Your task to perform on an android device: Open Google Maps and go to "Timeline" Image 0: 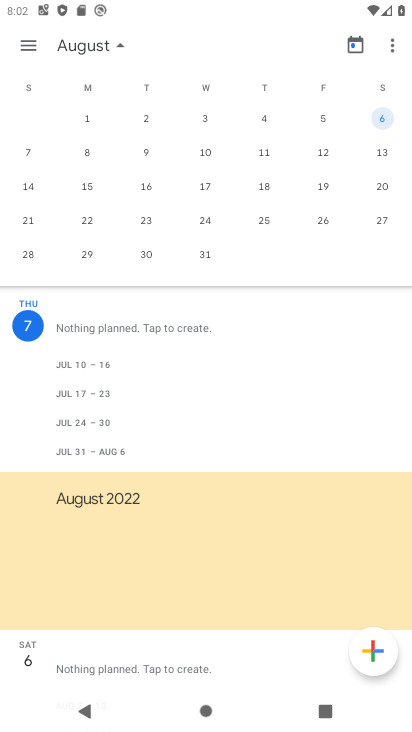
Step 0: drag from (180, 610) to (185, 194)
Your task to perform on an android device: Open Google Maps and go to "Timeline" Image 1: 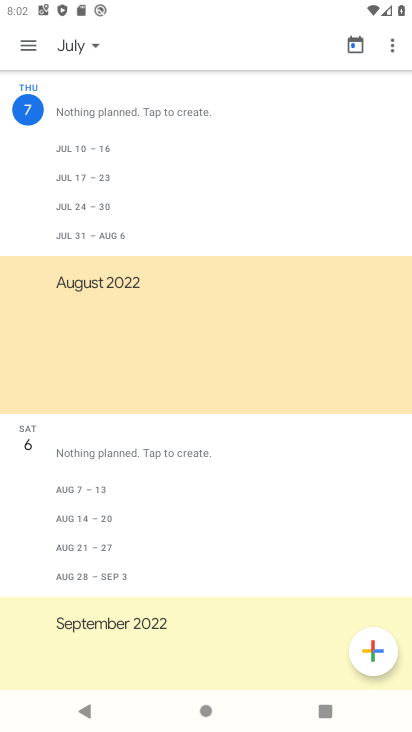
Step 1: press home button
Your task to perform on an android device: Open Google Maps and go to "Timeline" Image 2: 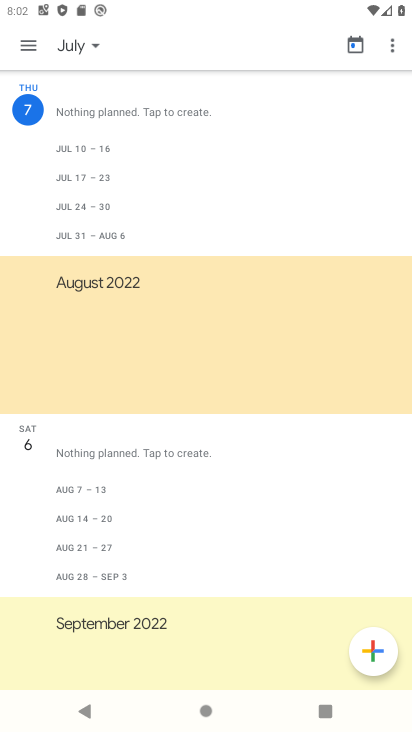
Step 2: drag from (282, 552) to (236, 176)
Your task to perform on an android device: Open Google Maps and go to "Timeline" Image 3: 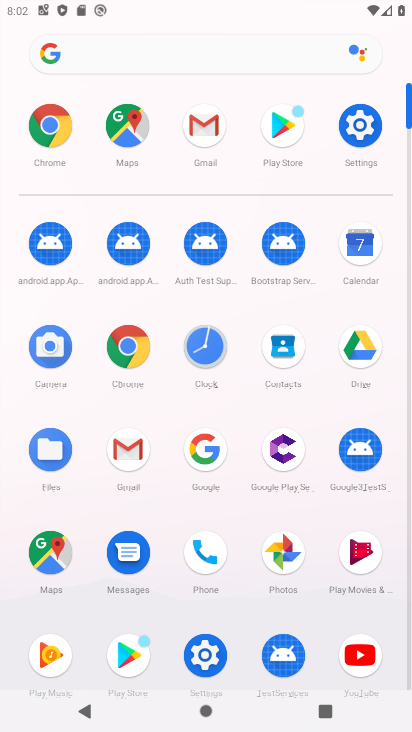
Step 3: click (114, 116)
Your task to perform on an android device: Open Google Maps and go to "Timeline" Image 4: 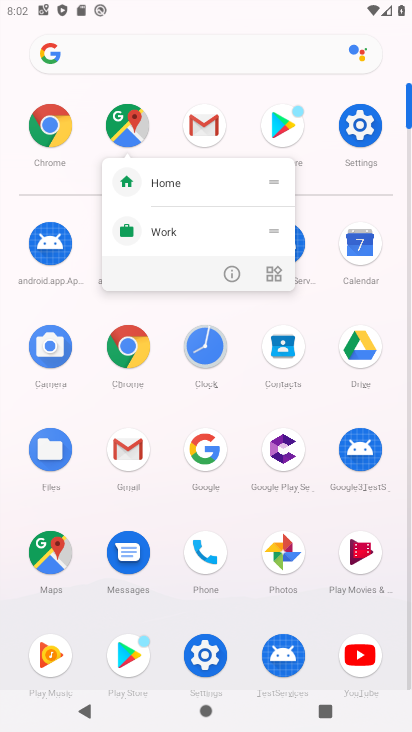
Step 4: click (227, 284)
Your task to perform on an android device: Open Google Maps and go to "Timeline" Image 5: 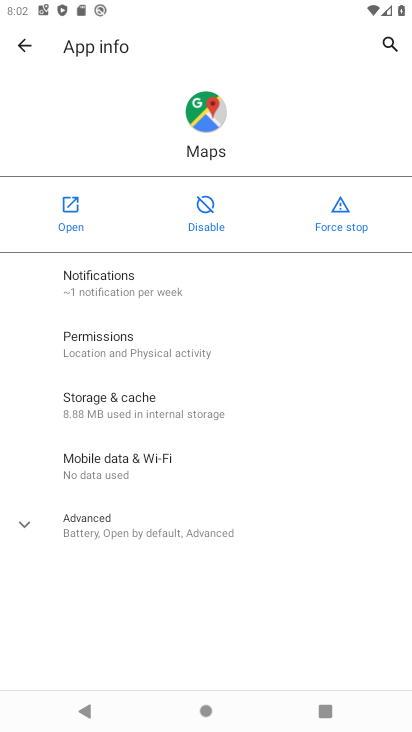
Step 5: click (66, 215)
Your task to perform on an android device: Open Google Maps and go to "Timeline" Image 6: 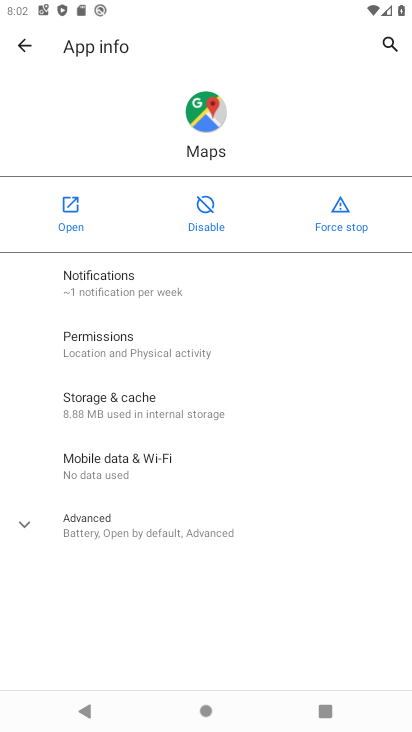
Step 6: click (63, 212)
Your task to perform on an android device: Open Google Maps and go to "Timeline" Image 7: 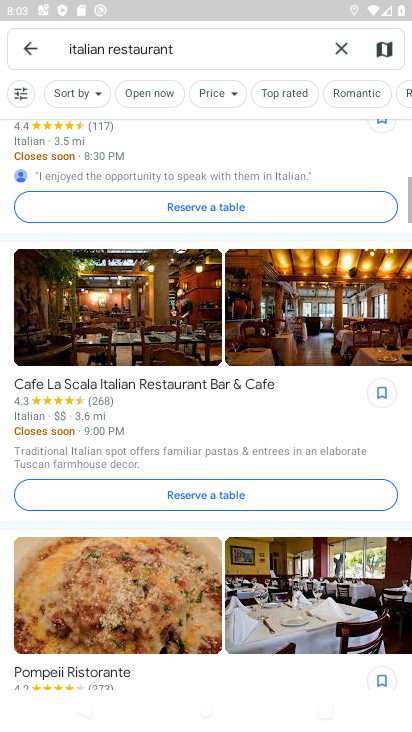
Step 7: click (20, 56)
Your task to perform on an android device: Open Google Maps and go to "Timeline" Image 8: 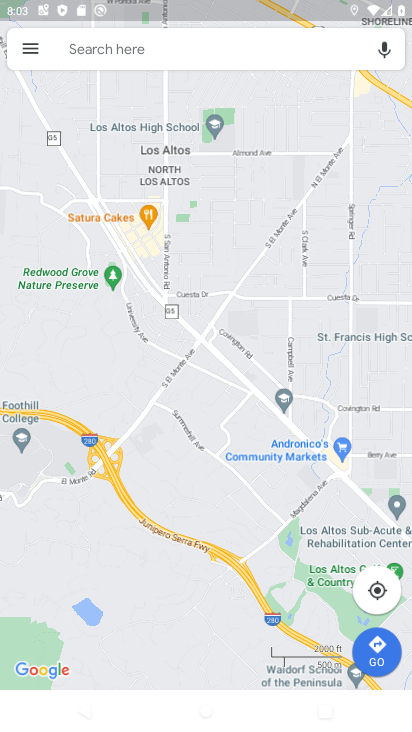
Step 8: click (32, 57)
Your task to perform on an android device: Open Google Maps and go to "Timeline" Image 9: 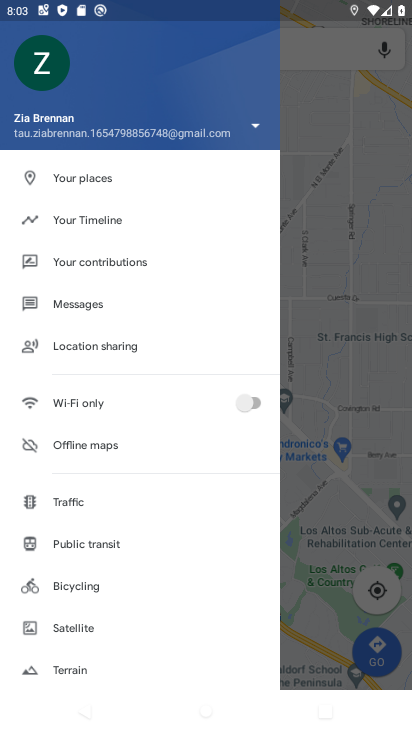
Step 9: click (99, 219)
Your task to perform on an android device: Open Google Maps and go to "Timeline" Image 10: 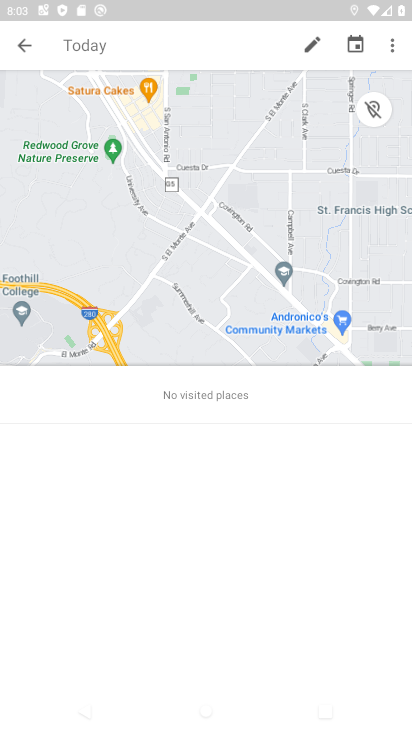
Step 10: task complete